Your task to perform on an android device: When is my next meeting? Image 0: 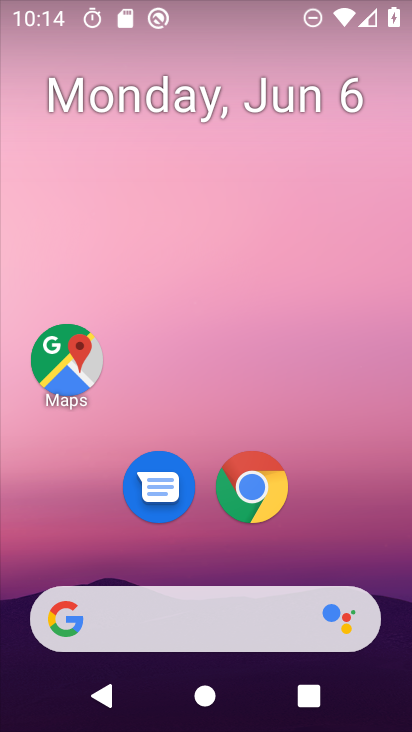
Step 0: drag from (402, 618) to (315, 10)
Your task to perform on an android device: When is my next meeting? Image 1: 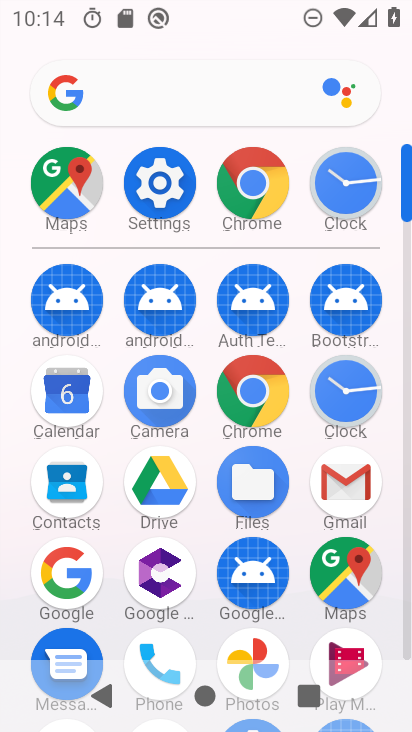
Step 1: click (74, 395)
Your task to perform on an android device: When is my next meeting? Image 2: 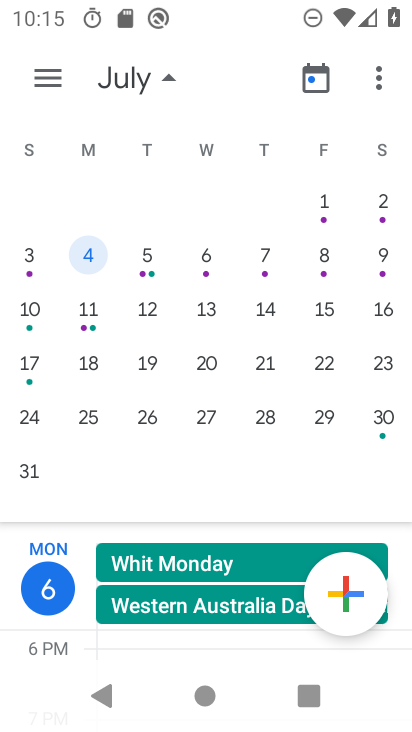
Step 2: task complete